Your task to perform on an android device: turn off notifications settings in the gmail app Image 0: 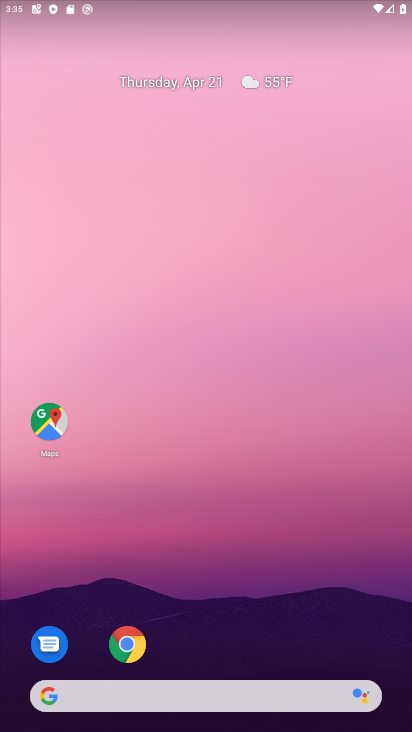
Step 0: drag from (208, 656) to (138, 17)
Your task to perform on an android device: turn off notifications settings in the gmail app Image 1: 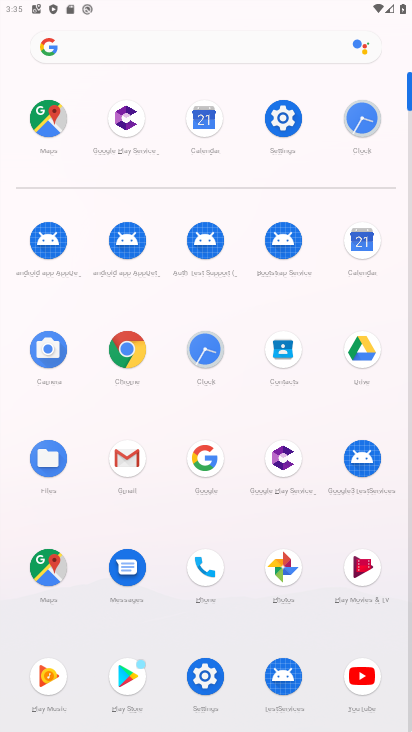
Step 1: click (127, 458)
Your task to perform on an android device: turn off notifications settings in the gmail app Image 2: 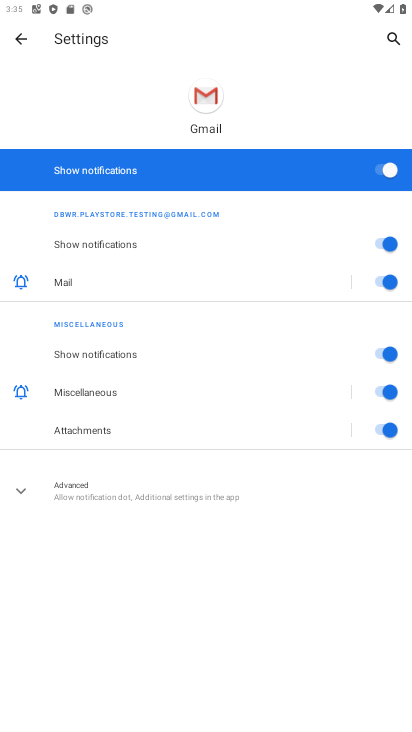
Step 2: click (399, 177)
Your task to perform on an android device: turn off notifications settings in the gmail app Image 3: 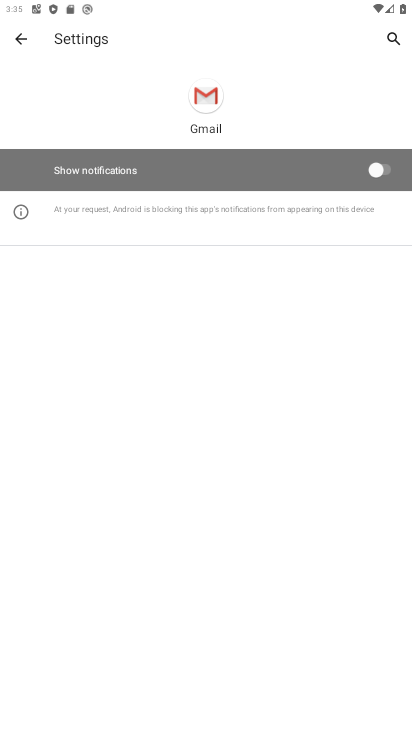
Step 3: task complete